Your task to perform on an android device: Go to Yahoo.com Image 0: 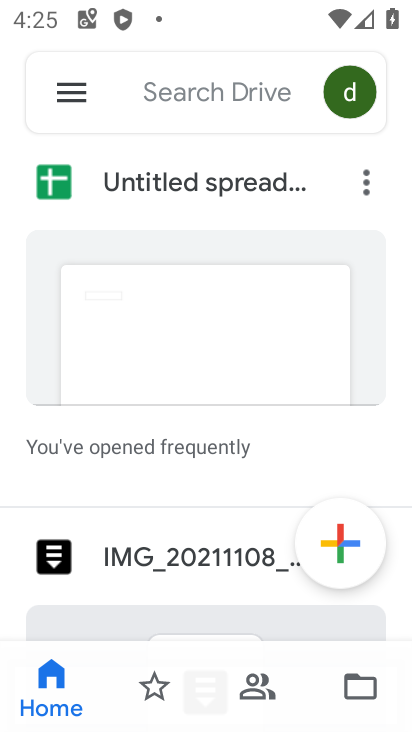
Step 0: press home button
Your task to perform on an android device: Go to Yahoo.com Image 1: 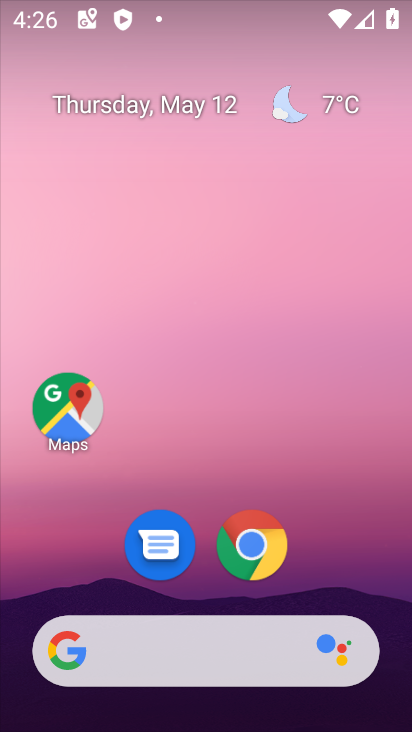
Step 1: click (237, 548)
Your task to perform on an android device: Go to Yahoo.com Image 2: 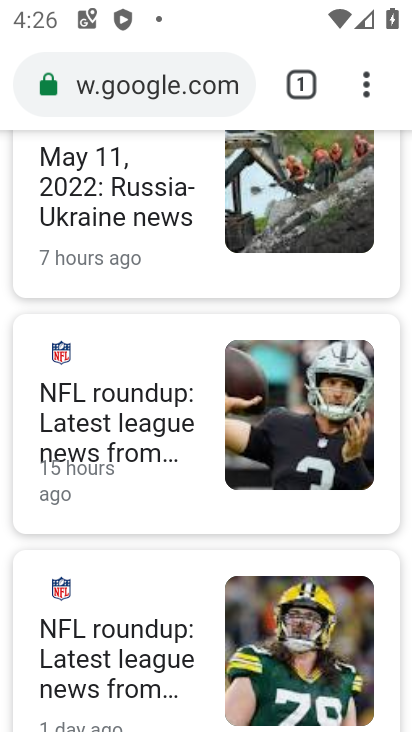
Step 2: click (148, 80)
Your task to perform on an android device: Go to Yahoo.com Image 3: 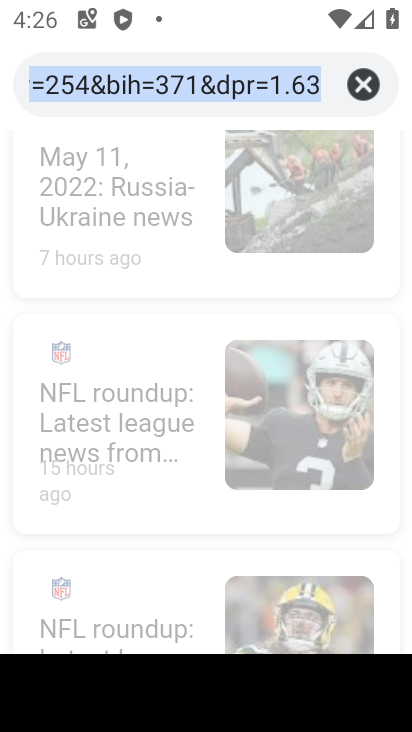
Step 3: type "yahoo.com"
Your task to perform on an android device: Go to Yahoo.com Image 4: 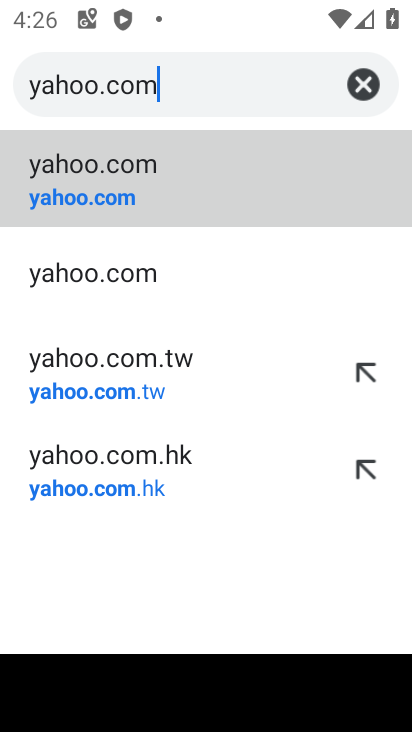
Step 4: click (101, 187)
Your task to perform on an android device: Go to Yahoo.com Image 5: 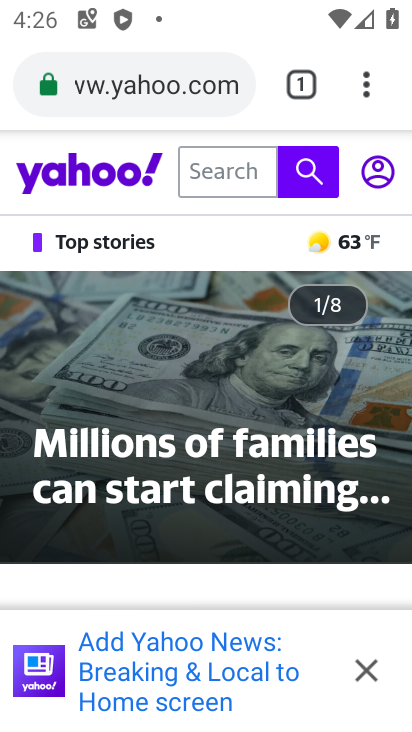
Step 5: task complete